Your task to perform on an android device: What is the news today? Image 0: 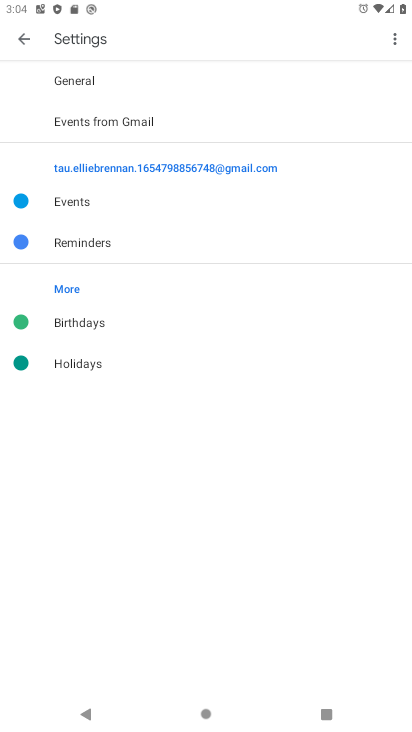
Step 0: press home button
Your task to perform on an android device: What is the news today? Image 1: 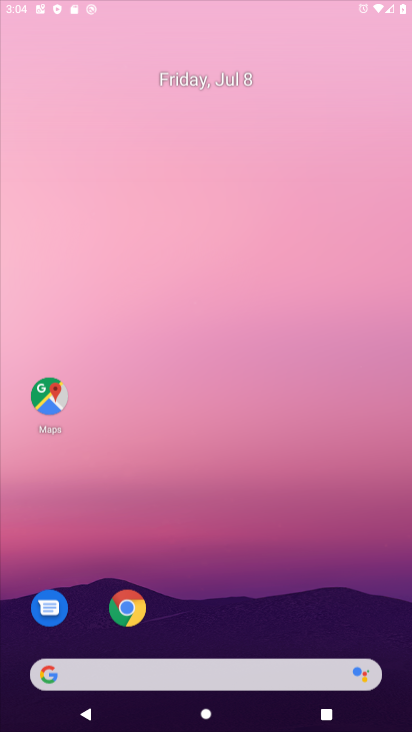
Step 1: drag from (252, 607) to (298, 5)
Your task to perform on an android device: What is the news today? Image 2: 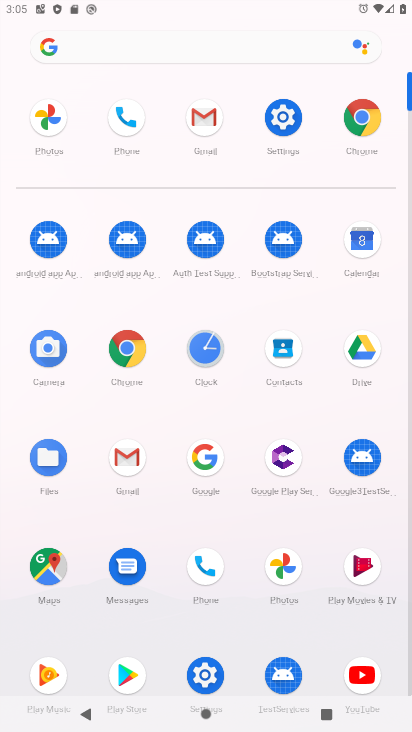
Step 2: click (129, 385)
Your task to perform on an android device: What is the news today? Image 3: 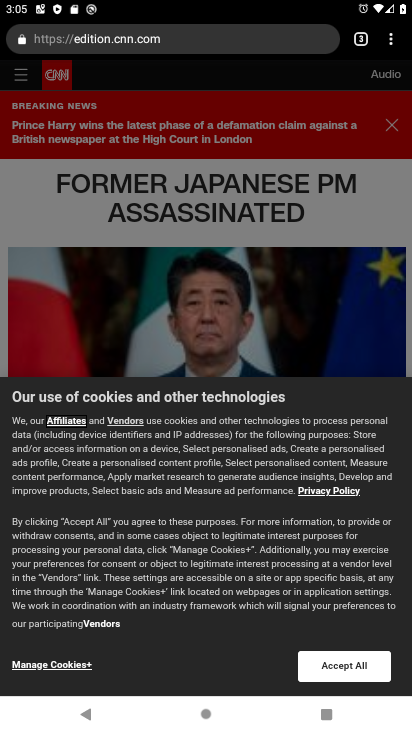
Step 3: click (231, 46)
Your task to perform on an android device: What is the news today? Image 4: 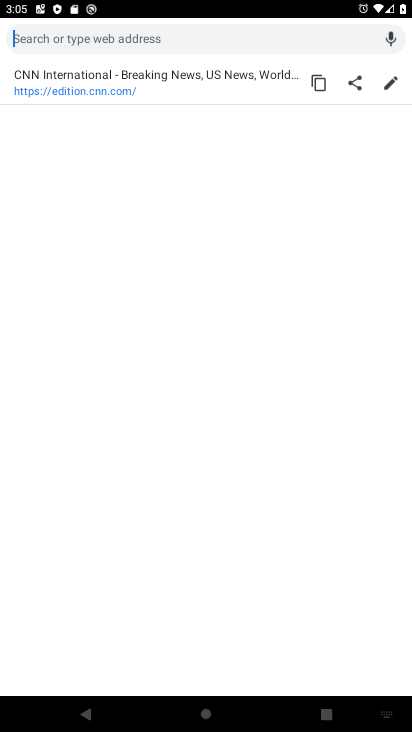
Step 4: type "news today"
Your task to perform on an android device: What is the news today? Image 5: 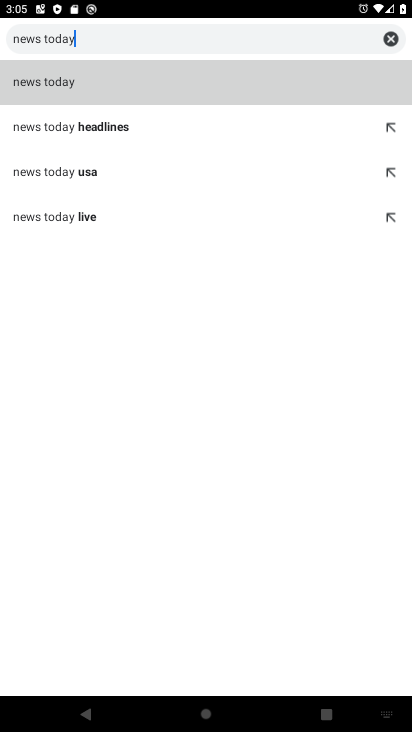
Step 5: click (122, 80)
Your task to perform on an android device: What is the news today? Image 6: 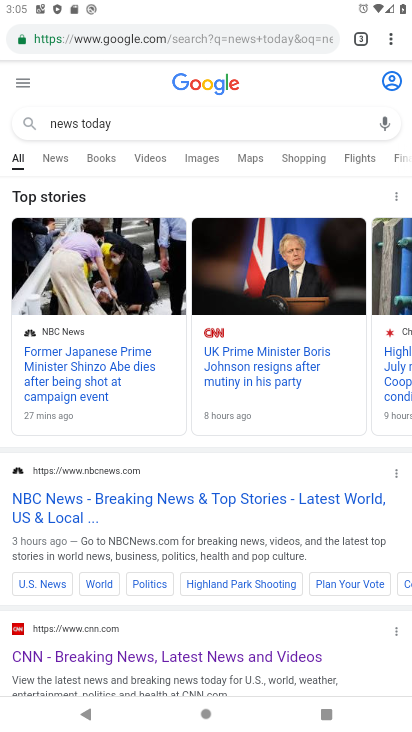
Step 6: task complete